Your task to perform on an android device: Open calendar and show me the third week of next month Image 0: 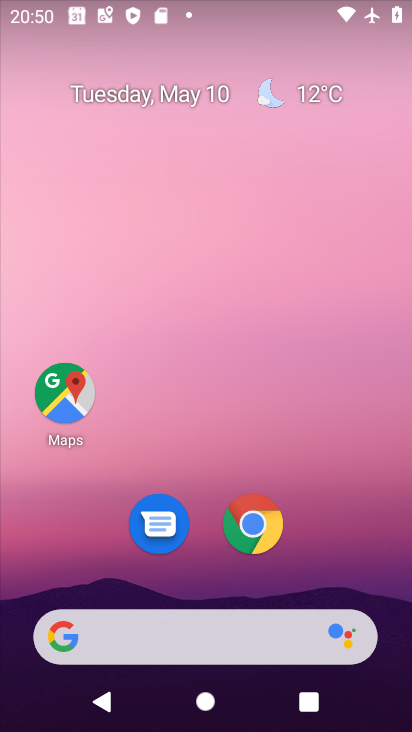
Step 0: drag from (343, 495) to (286, 47)
Your task to perform on an android device: Open calendar and show me the third week of next month Image 1: 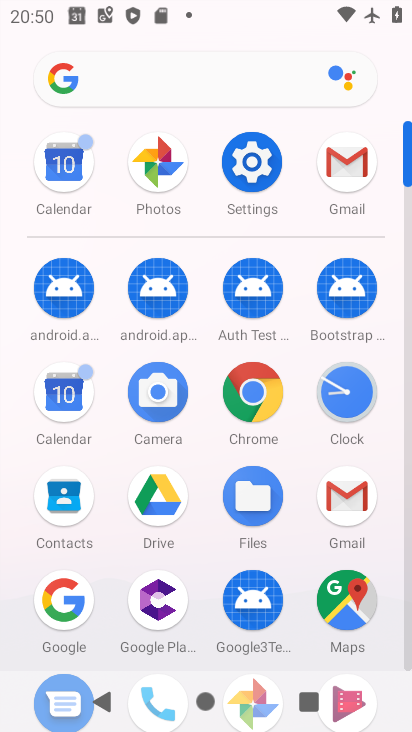
Step 1: click (77, 168)
Your task to perform on an android device: Open calendar and show me the third week of next month Image 2: 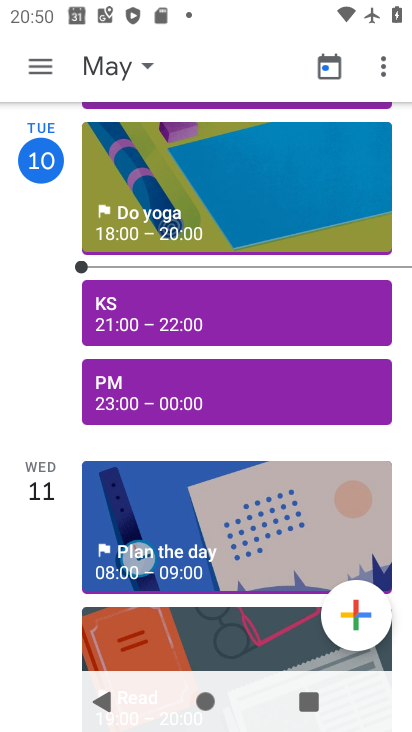
Step 2: click (31, 63)
Your task to perform on an android device: Open calendar and show me the third week of next month Image 3: 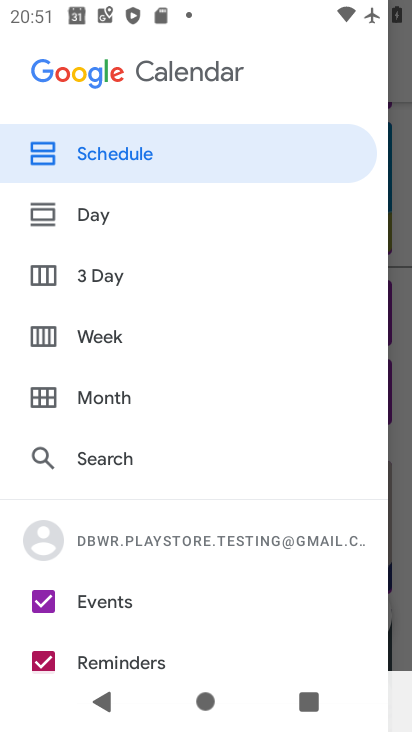
Step 3: click (94, 389)
Your task to perform on an android device: Open calendar and show me the third week of next month Image 4: 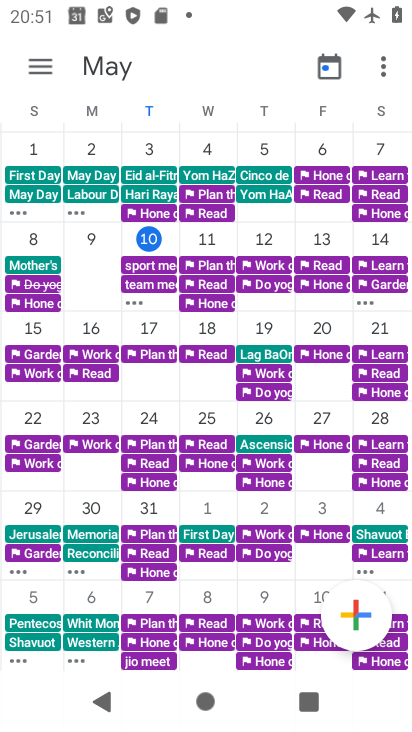
Step 4: drag from (375, 412) to (1, 415)
Your task to perform on an android device: Open calendar and show me the third week of next month Image 5: 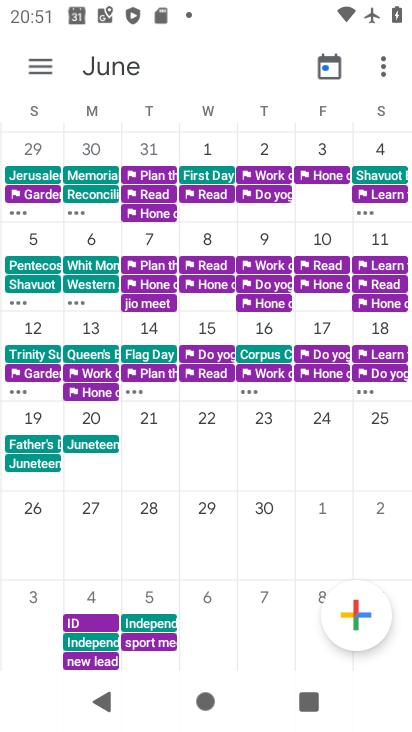
Step 5: click (38, 408)
Your task to perform on an android device: Open calendar and show me the third week of next month Image 6: 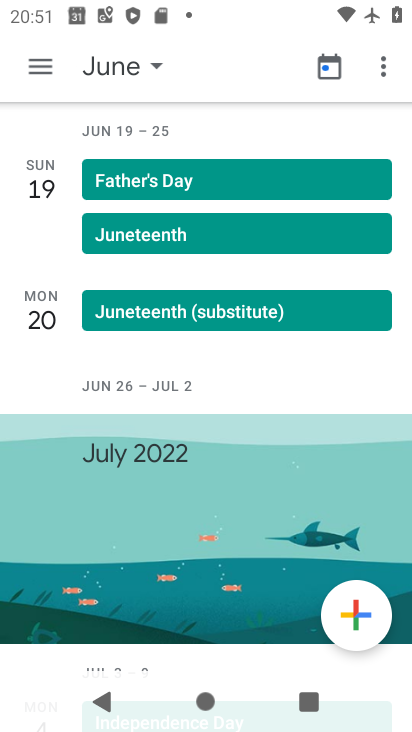
Step 6: click (33, 61)
Your task to perform on an android device: Open calendar and show me the third week of next month Image 7: 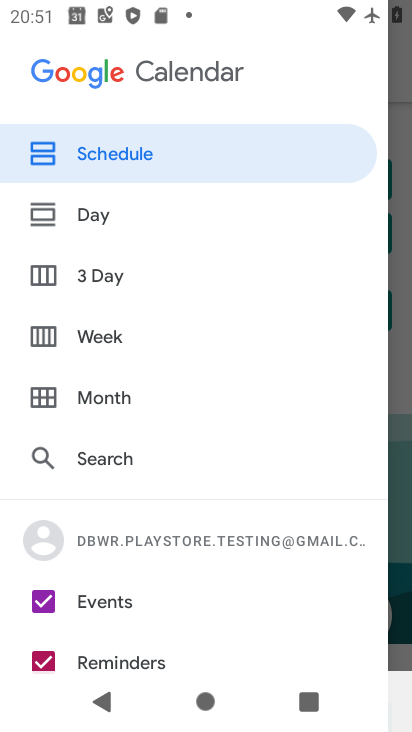
Step 7: click (92, 332)
Your task to perform on an android device: Open calendar and show me the third week of next month Image 8: 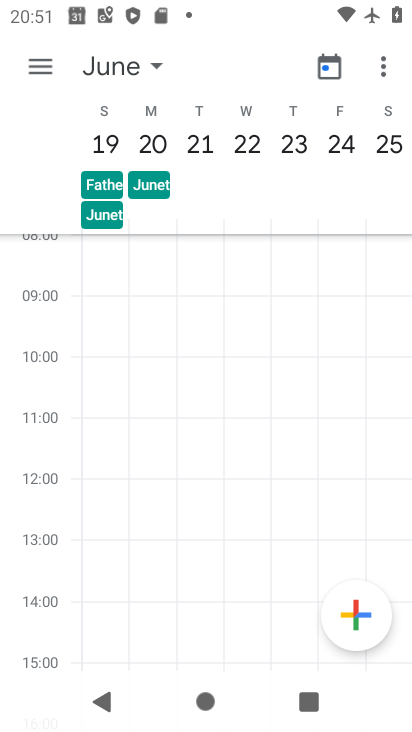
Step 8: task complete